Your task to perform on an android device: move an email to a new category in the gmail app Image 0: 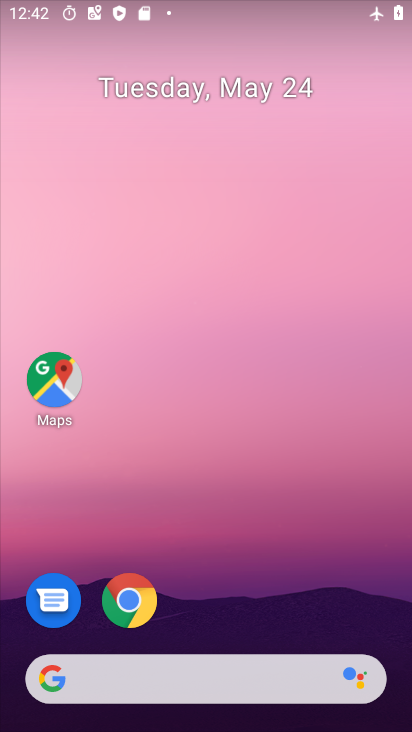
Step 0: drag from (343, 560) to (249, 143)
Your task to perform on an android device: move an email to a new category in the gmail app Image 1: 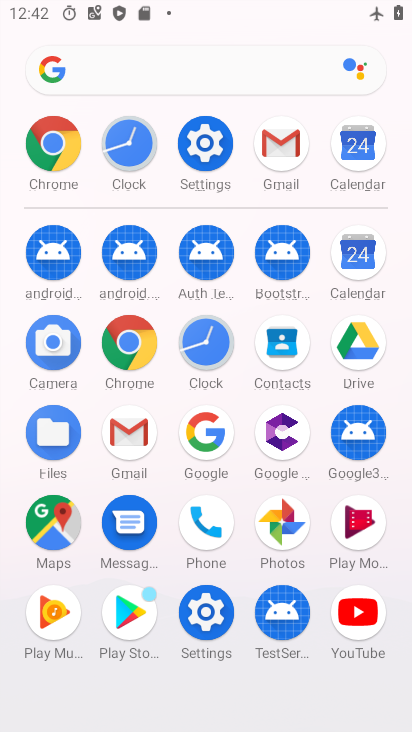
Step 1: click (273, 145)
Your task to perform on an android device: move an email to a new category in the gmail app Image 2: 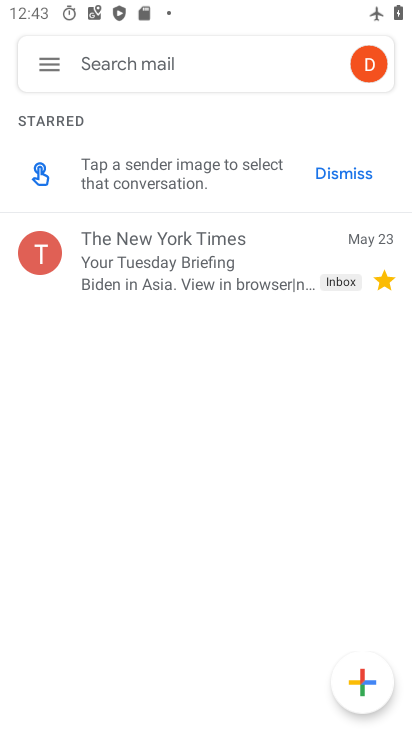
Step 2: click (49, 60)
Your task to perform on an android device: move an email to a new category in the gmail app Image 3: 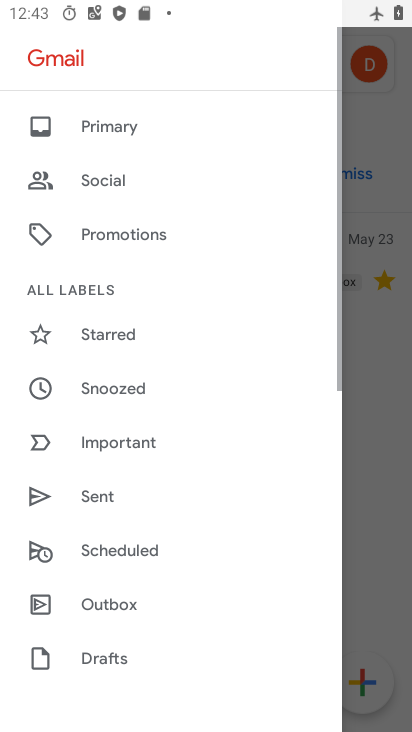
Step 3: drag from (167, 554) to (158, 368)
Your task to perform on an android device: move an email to a new category in the gmail app Image 4: 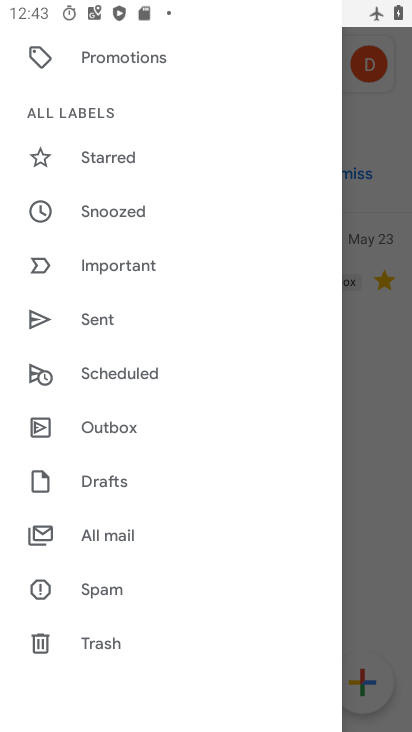
Step 4: click (389, 368)
Your task to perform on an android device: move an email to a new category in the gmail app Image 5: 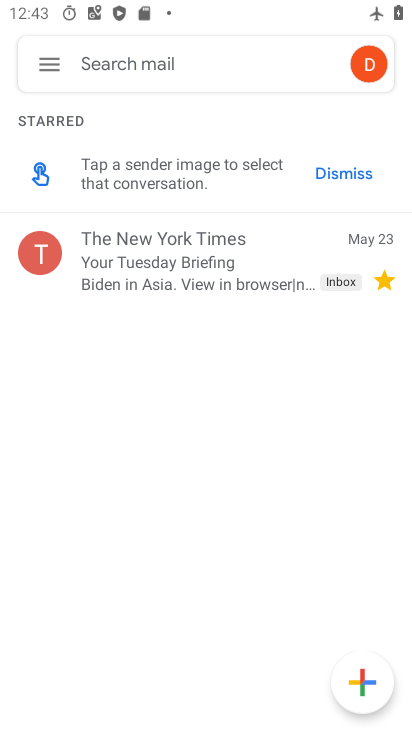
Step 5: click (258, 267)
Your task to perform on an android device: move an email to a new category in the gmail app Image 6: 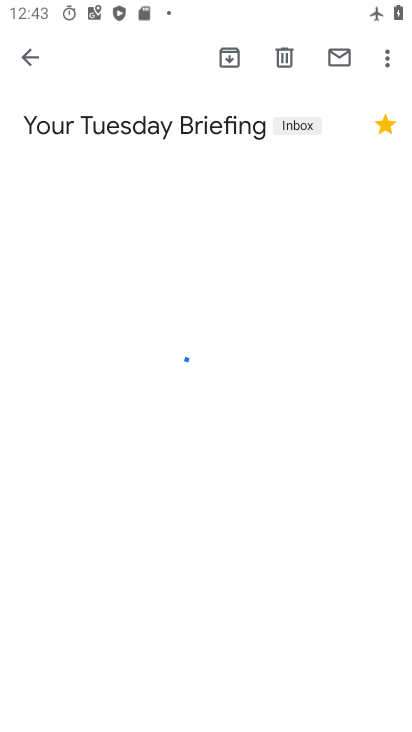
Step 6: click (389, 52)
Your task to perform on an android device: move an email to a new category in the gmail app Image 7: 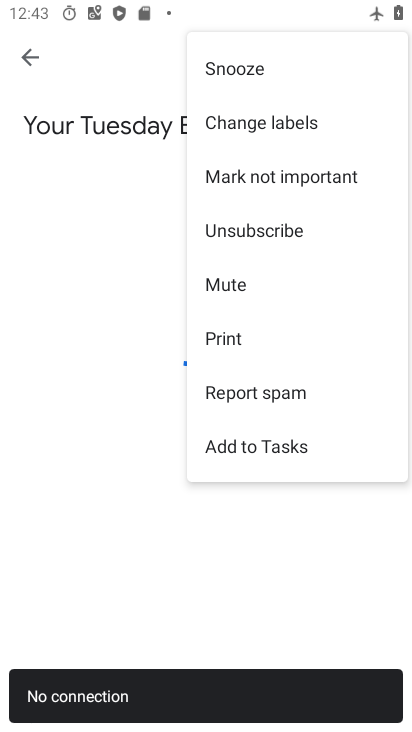
Step 7: click (288, 130)
Your task to perform on an android device: move an email to a new category in the gmail app Image 8: 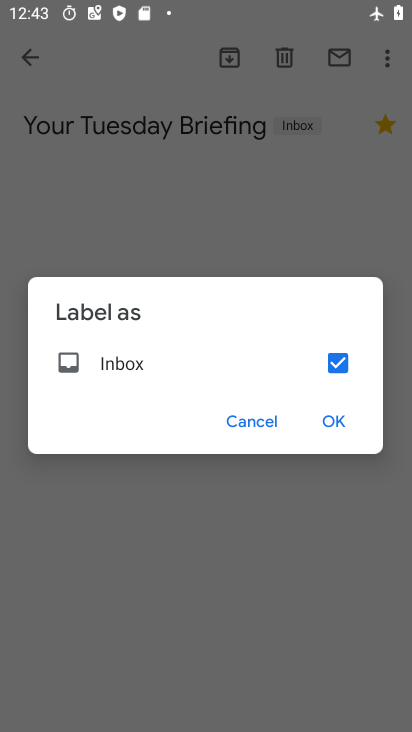
Step 8: click (253, 412)
Your task to perform on an android device: move an email to a new category in the gmail app Image 9: 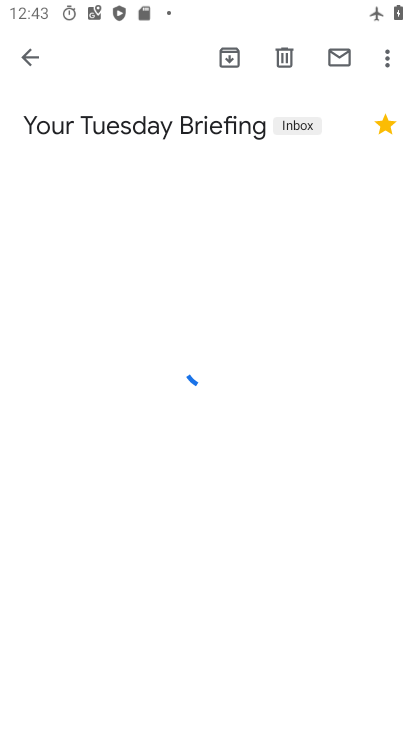
Step 9: click (42, 51)
Your task to perform on an android device: move an email to a new category in the gmail app Image 10: 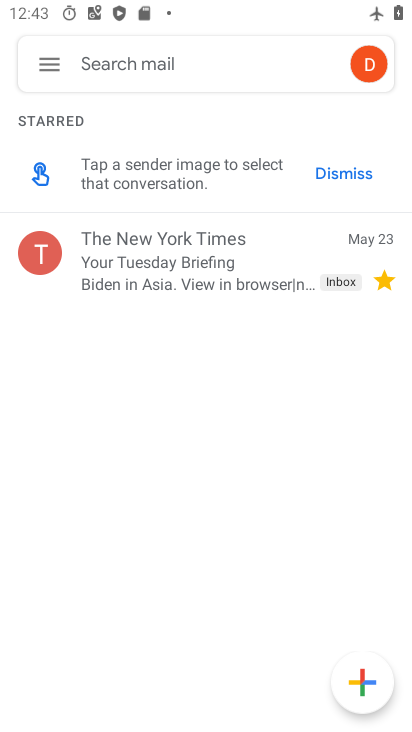
Step 10: click (50, 58)
Your task to perform on an android device: move an email to a new category in the gmail app Image 11: 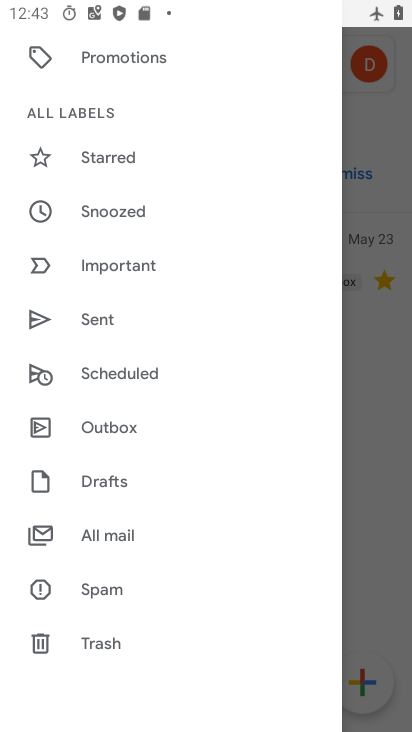
Step 11: drag from (130, 161) to (152, 421)
Your task to perform on an android device: move an email to a new category in the gmail app Image 12: 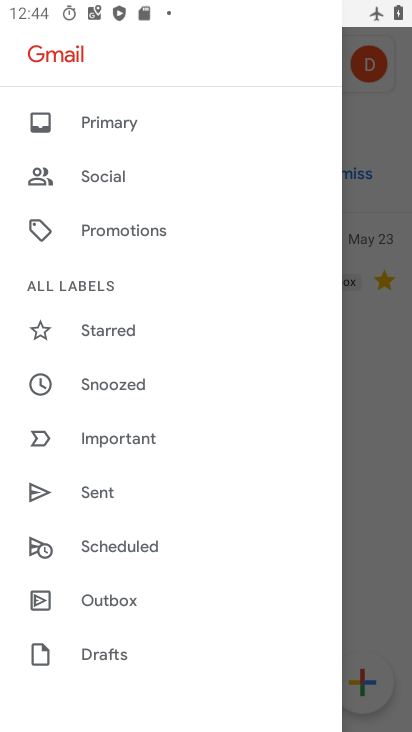
Step 12: click (368, 336)
Your task to perform on an android device: move an email to a new category in the gmail app Image 13: 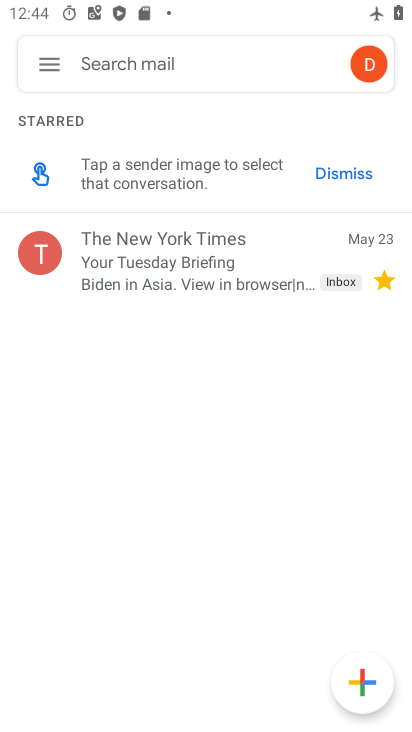
Step 13: drag from (165, 321) to (190, 640)
Your task to perform on an android device: move an email to a new category in the gmail app Image 14: 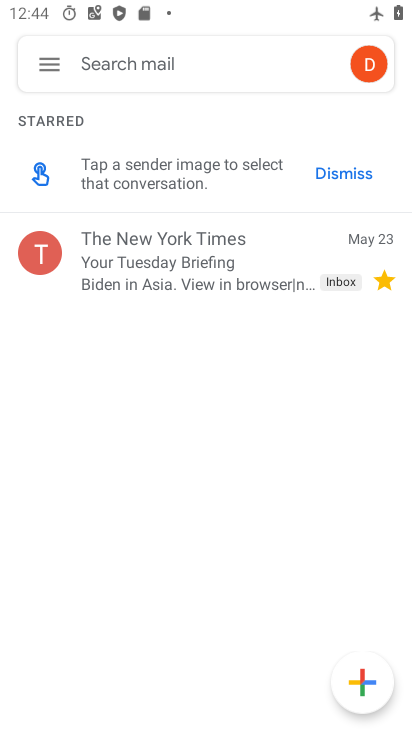
Step 14: click (144, 256)
Your task to perform on an android device: move an email to a new category in the gmail app Image 15: 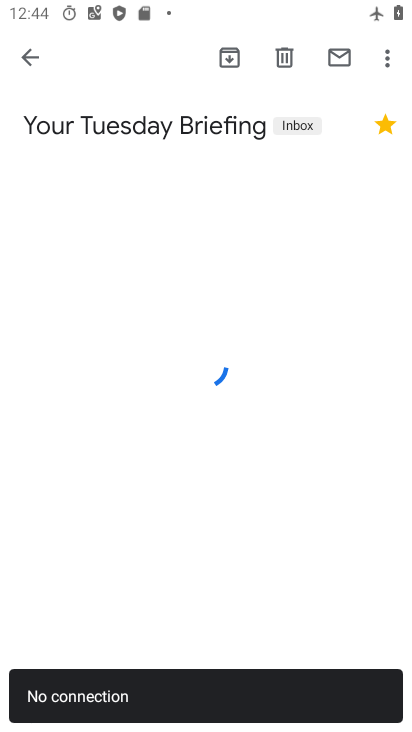
Step 15: click (388, 60)
Your task to perform on an android device: move an email to a new category in the gmail app Image 16: 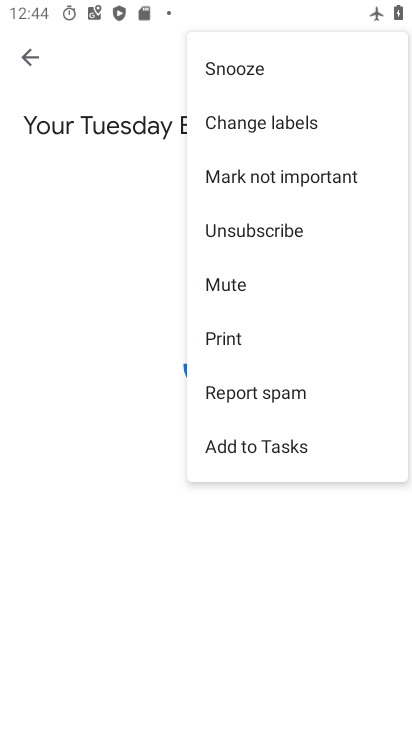
Step 16: click (299, 127)
Your task to perform on an android device: move an email to a new category in the gmail app Image 17: 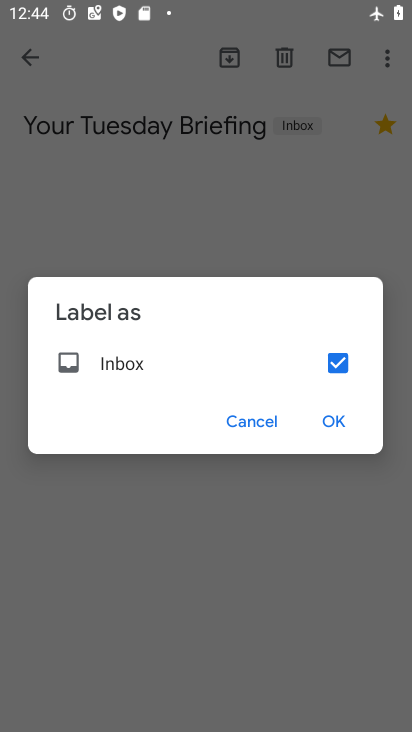
Step 17: click (261, 420)
Your task to perform on an android device: move an email to a new category in the gmail app Image 18: 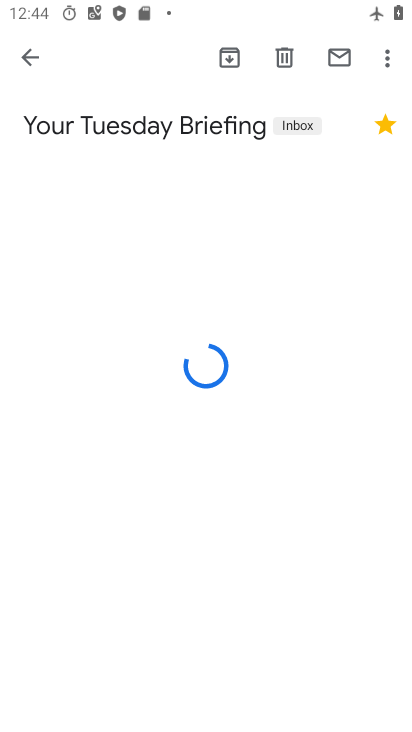
Step 18: task complete